Your task to perform on an android device: change the clock display to analog Image 0: 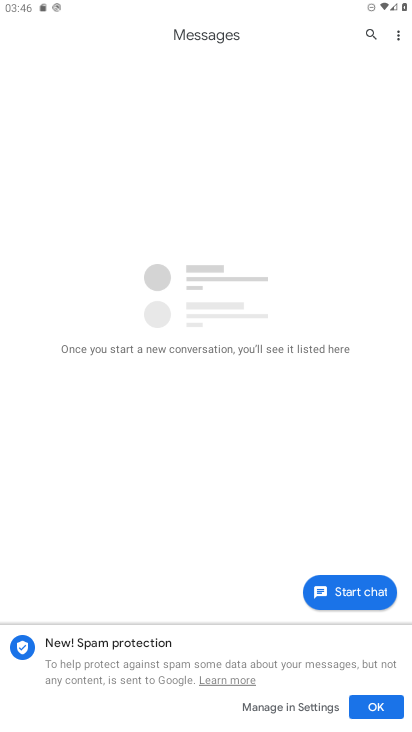
Step 0: press home button
Your task to perform on an android device: change the clock display to analog Image 1: 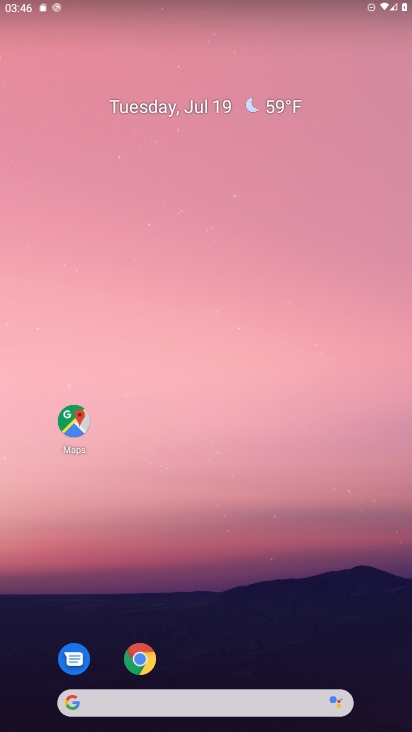
Step 1: drag from (181, 704) to (255, 31)
Your task to perform on an android device: change the clock display to analog Image 2: 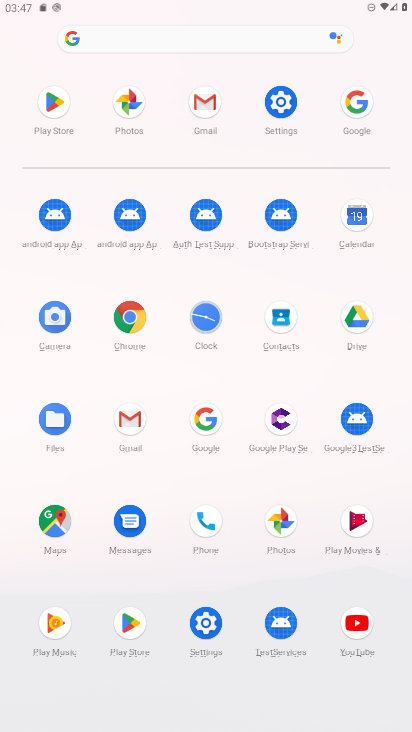
Step 2: click (207, 317)
Your task to perform on an android device: change the clock display to analog Image 3: 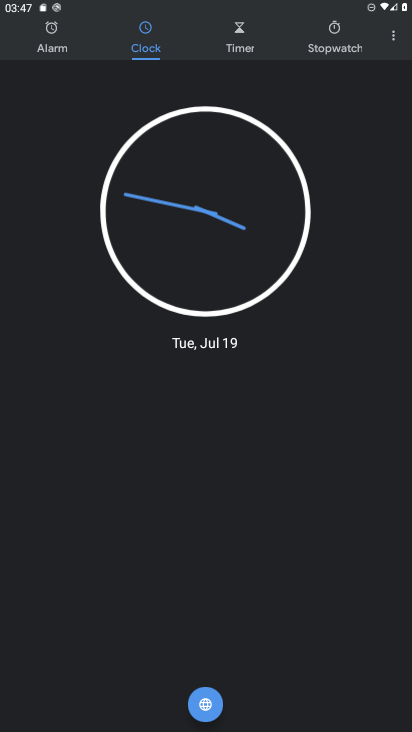
Step 3: click (396, 33)
Your task to perform on an android device: change the clock display to analog Image 4: 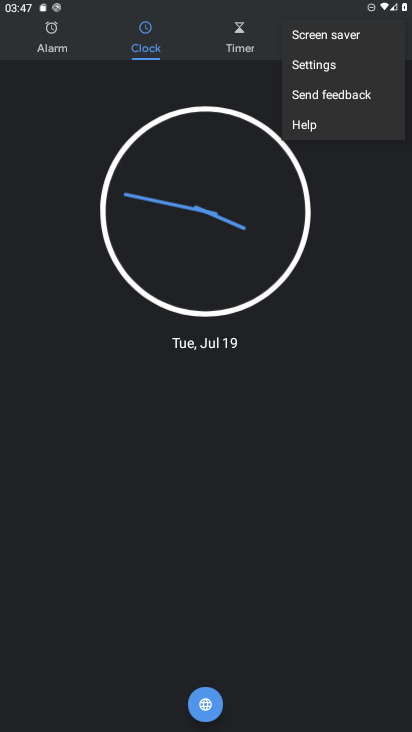
Step 4: click (322, 67)
Your task to perform on an android device: change the clock display to analog Image 5: 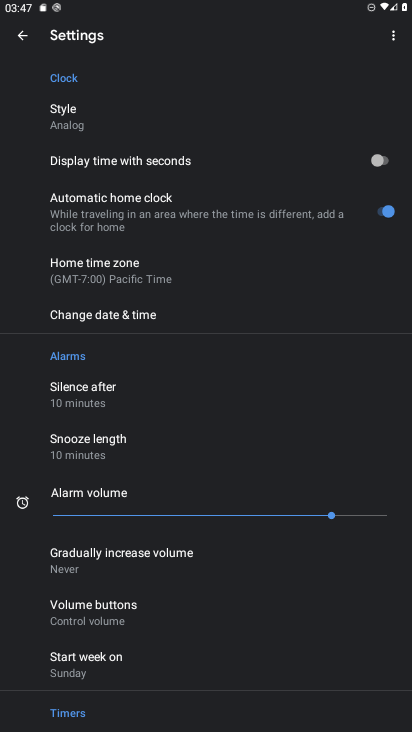
Step 5: click (72, 120)
Your task to perform on an android device: change the clock display to analog Image 6: 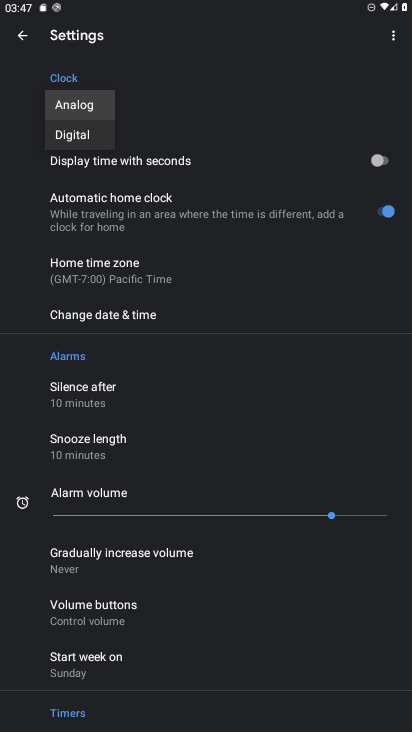
Step 6: click (77, 115)
Your task to perform on an android device: change the clock display to analog Image 7: 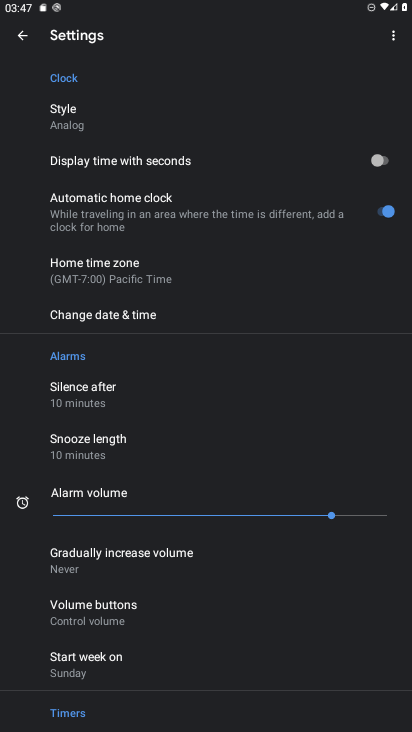
Step 7: task complete